Your task to perform on an android device: Open CNN.com Image 0: 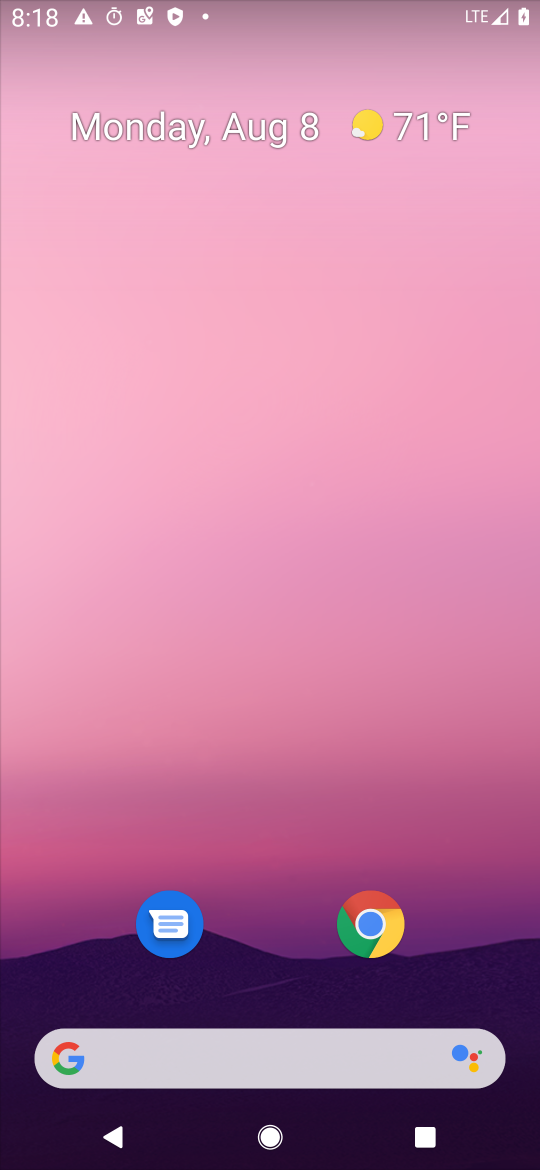
Step 0: click (197, 67)
Your task to perform on an android device: Open CNN.com Image 1: 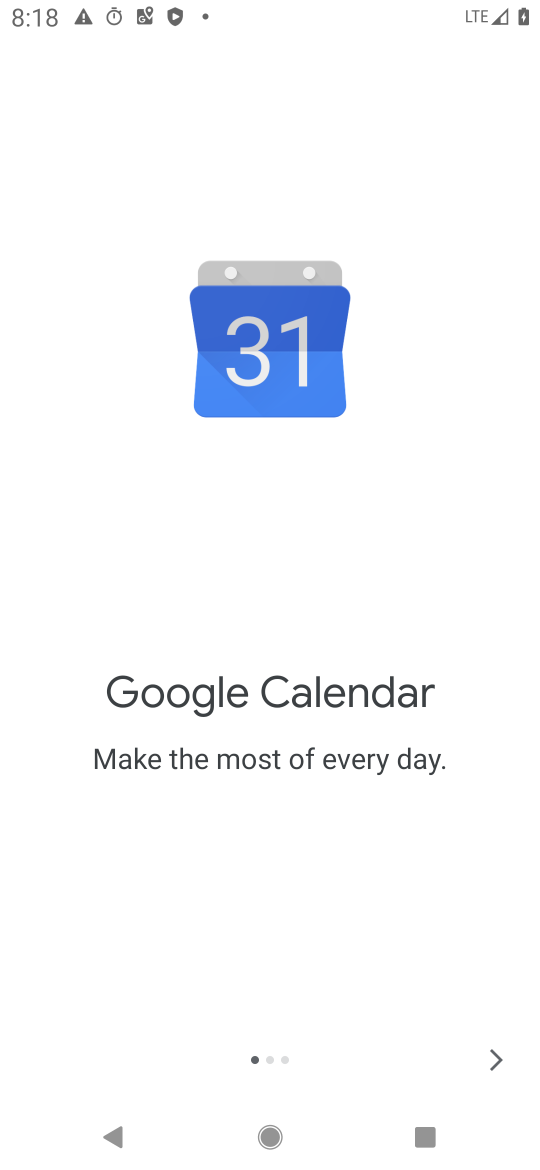
Step 1: click (344, 673)
Your task to perform on an android device: Open CNN.com Image 2: 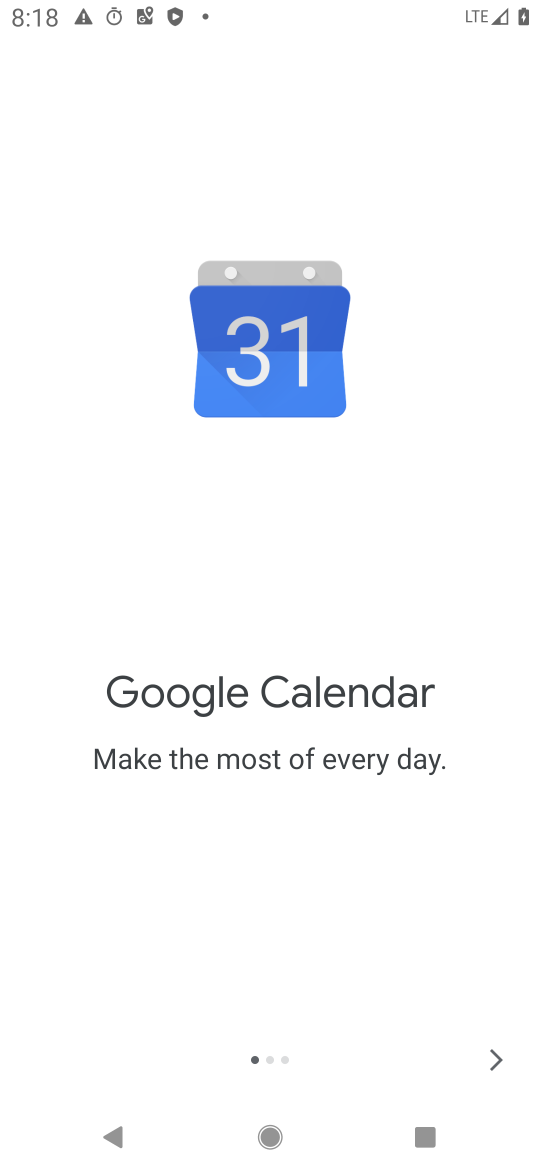
Step 2: press home button
Your task to perform on an android device: Open CNN.com Image 3: 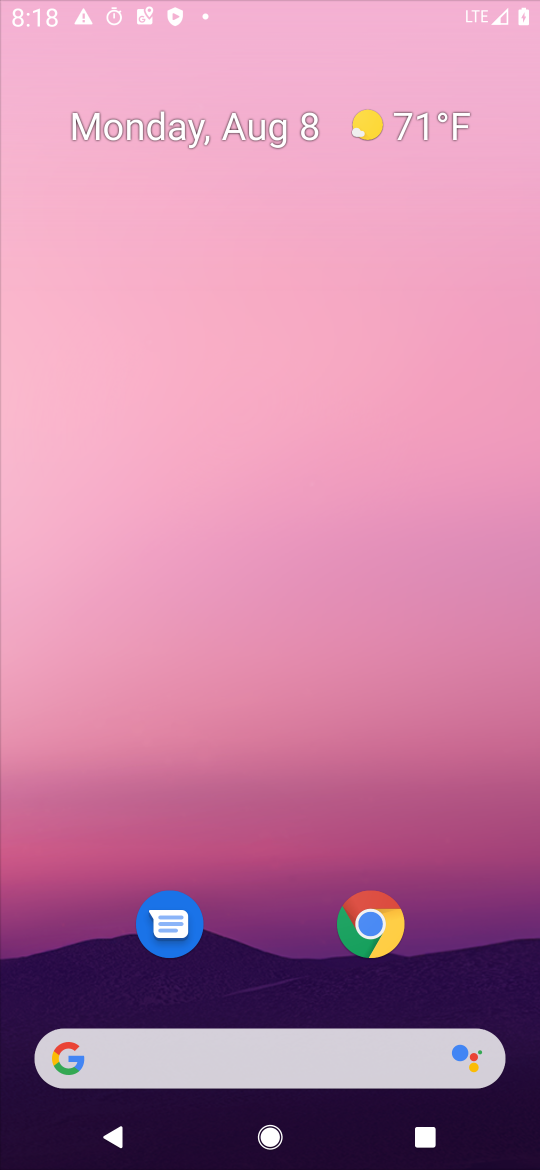
Step 3: drag from (285, 863) to (338, 106)
Your task to perform on an android device: Open CNN.com Image 4: 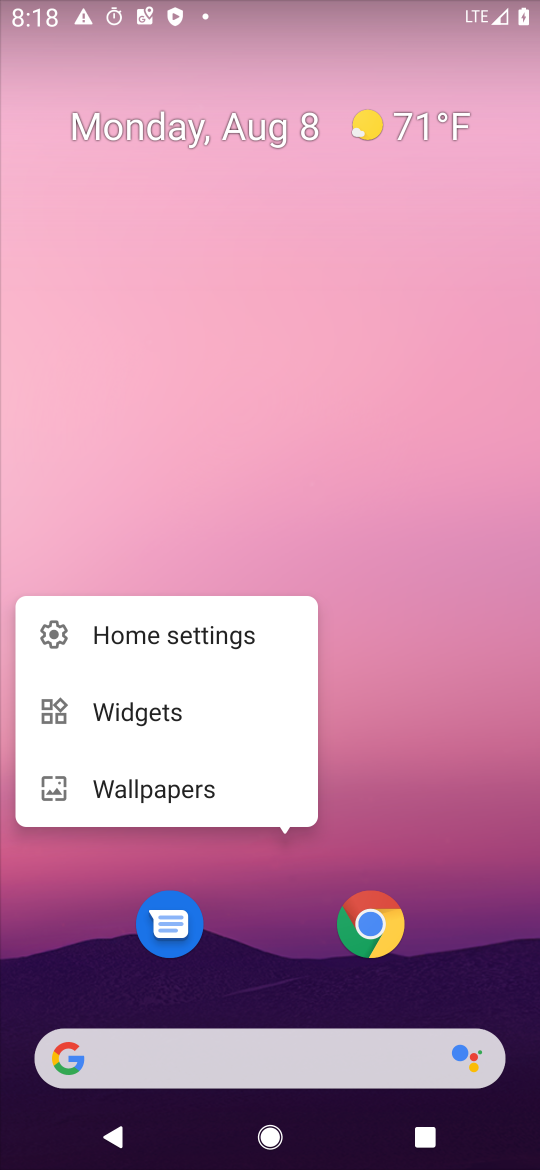
Step 4: drag from (269, 957) to (347, 173)
Your task to perform on an android device: Open CNN.com Image 5: 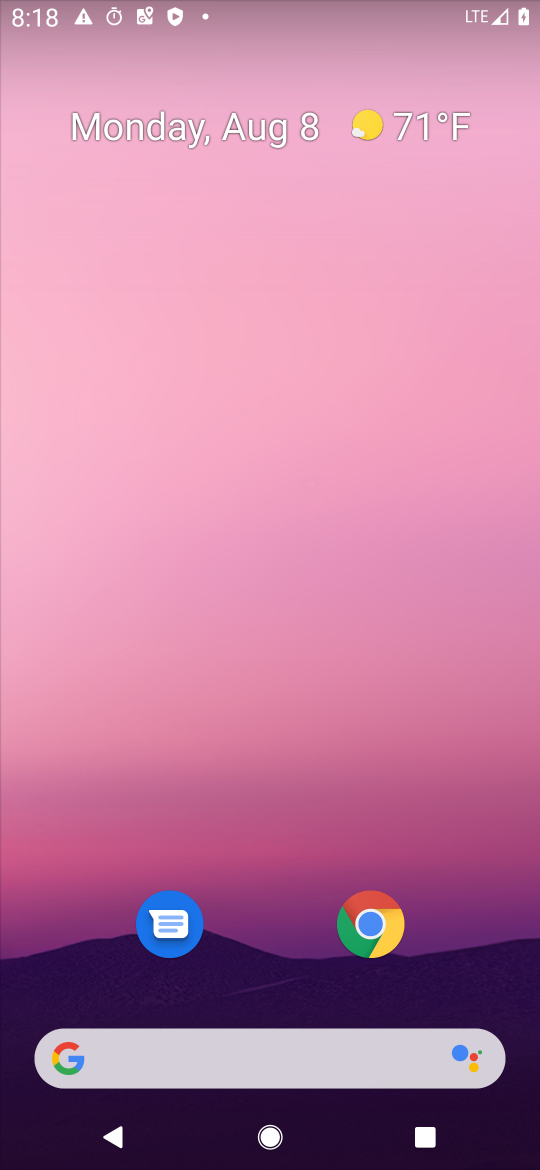
Step 5: drag from (261, 928) to (272, 207)
Your task to perform on an android device: Open CNN.com Image 6: 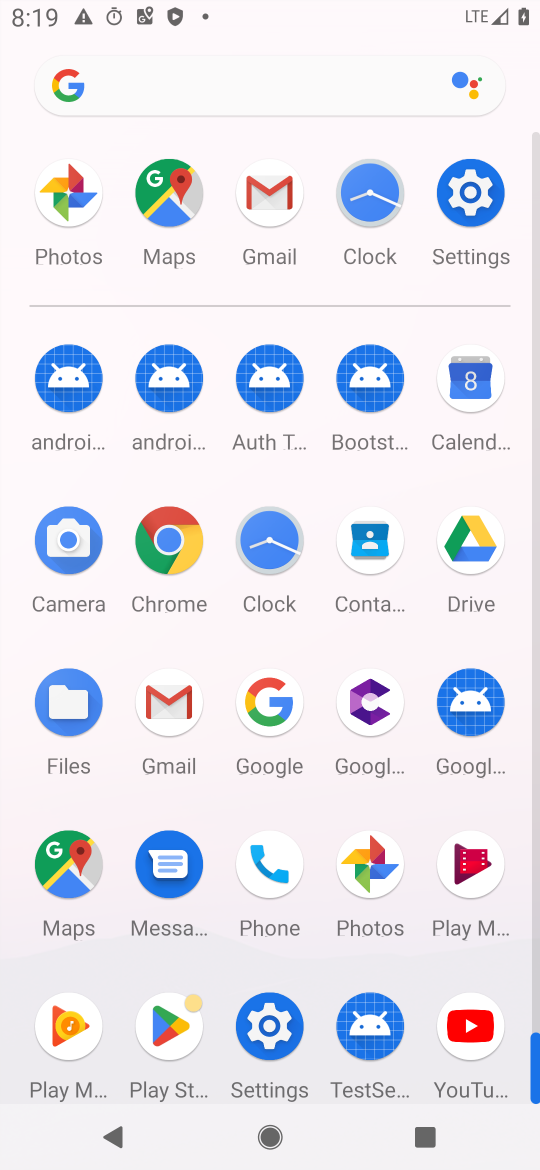
Step 6: click (160, 548)
Your task to perform on an android device: Open CNN.com Image 7: 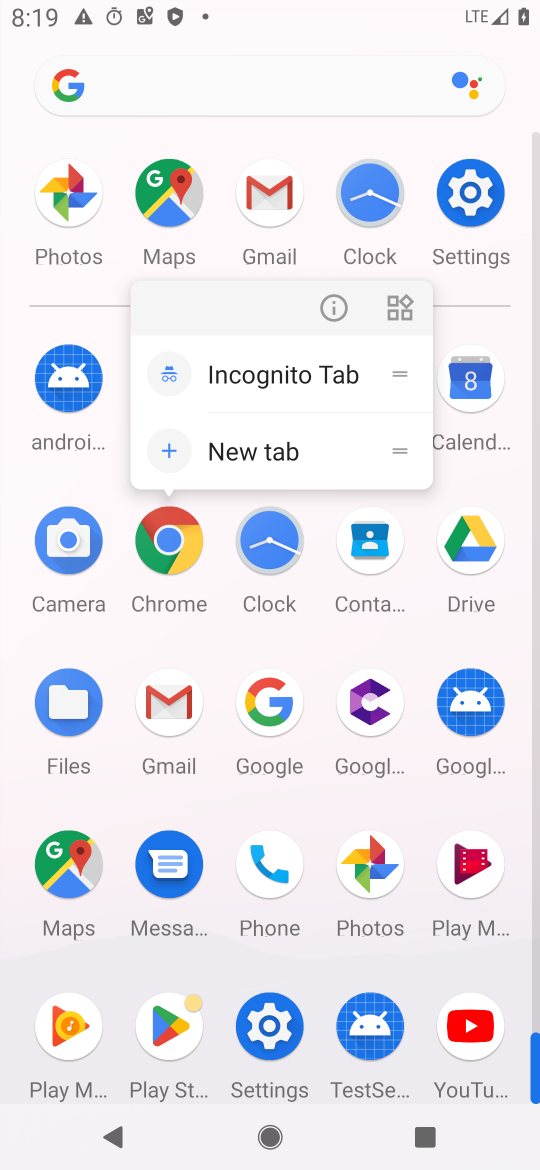
Step 7: click (327, 313)
Your task to perform on an android device: Open CNN.com Image 8: 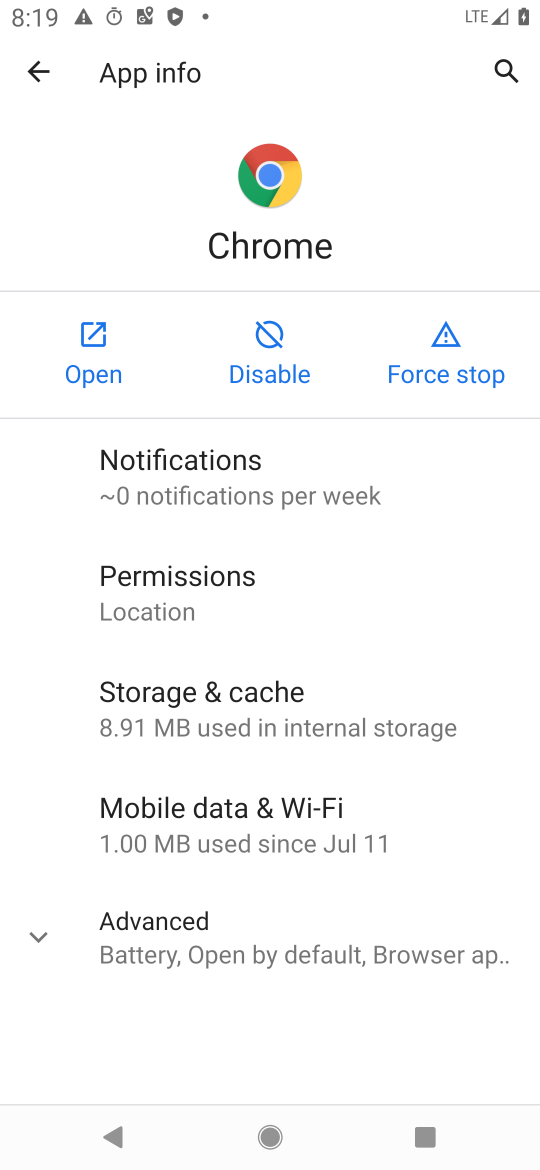
Step 8: click (85, 364)
Your task to perform on an android device: Open CNN.com Image 9: 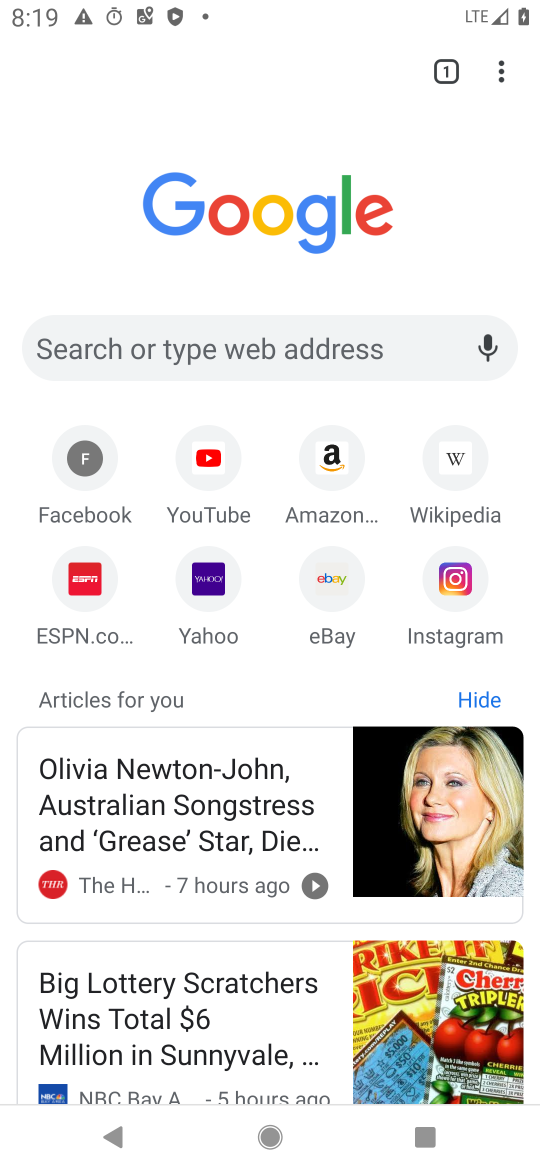
Step 9: click (184, 327)
Your task to perform on an android device: Open CNN.com Image 10: 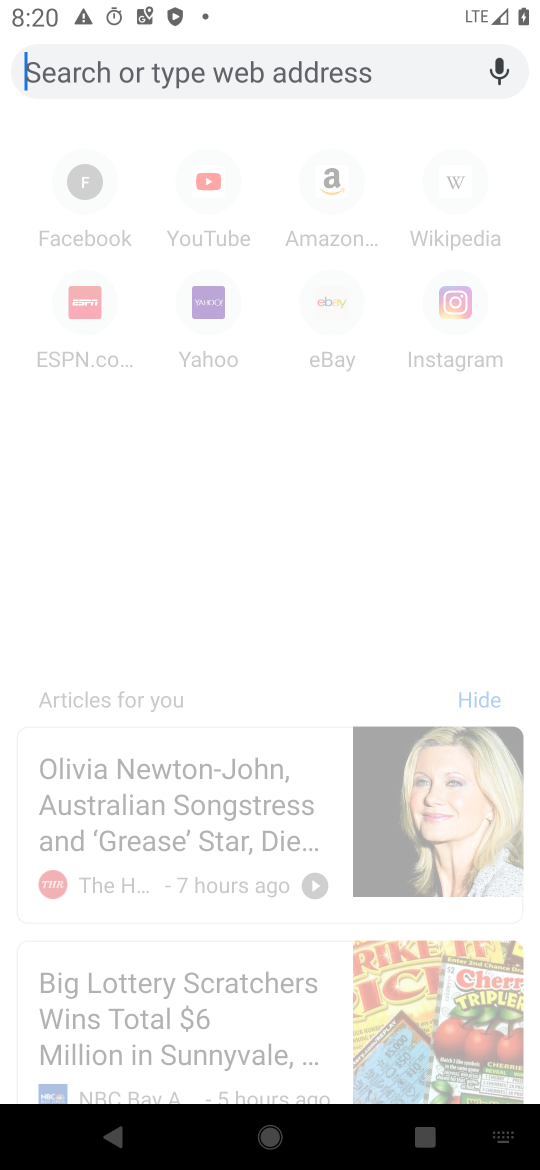
Step 10: type "cnn.com"
Your task to perform on an android device: Open CNN.com Image 11: 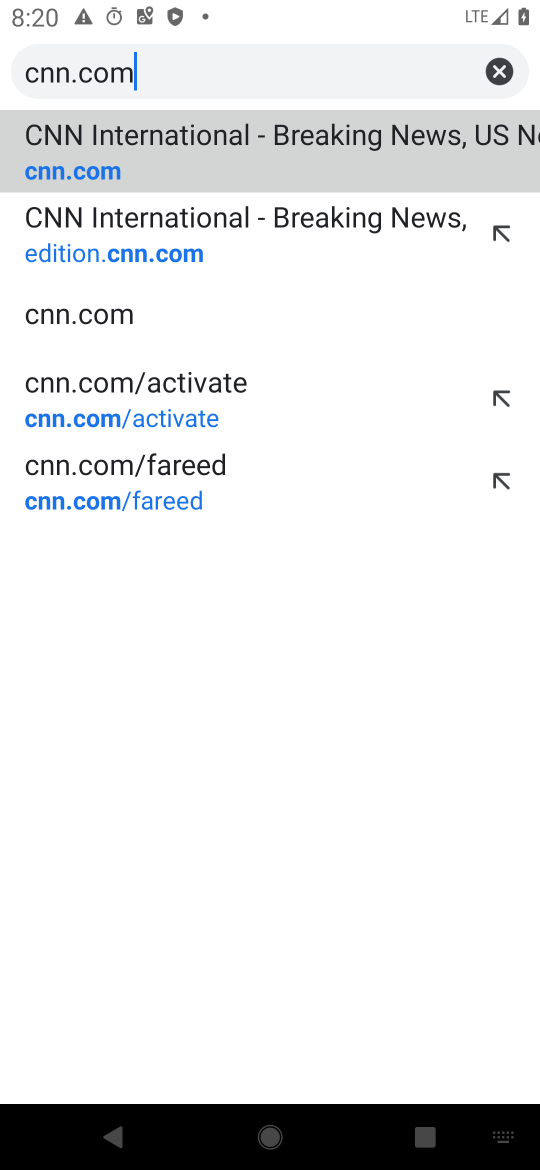
Step 11: click (121, 166)
Your task to perform on an android device: Open CNN.com Image 12: 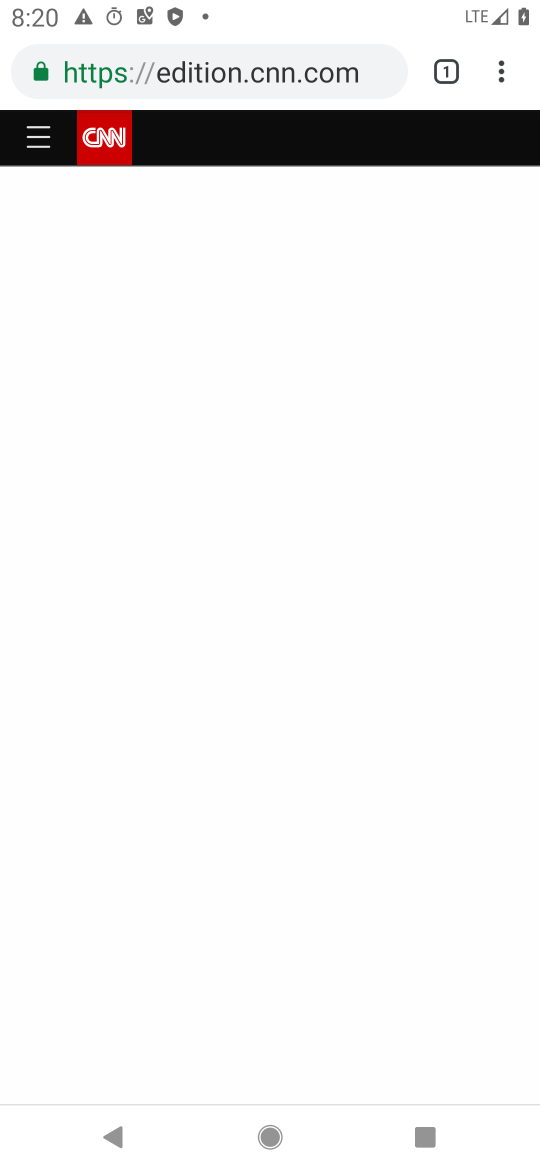
Step 12: task complete